Your task to perform on an android device: Open wifi settings Image 0: 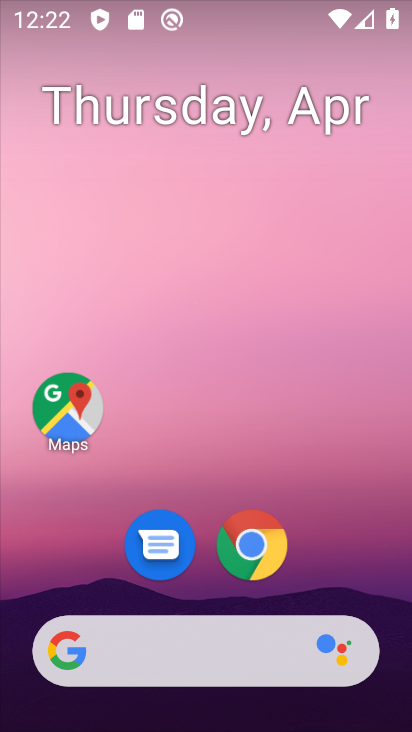
Step 0: drag from (337, 471) to (348, 177)
Your task to perform on an android device: Open wifi settings Image 1: 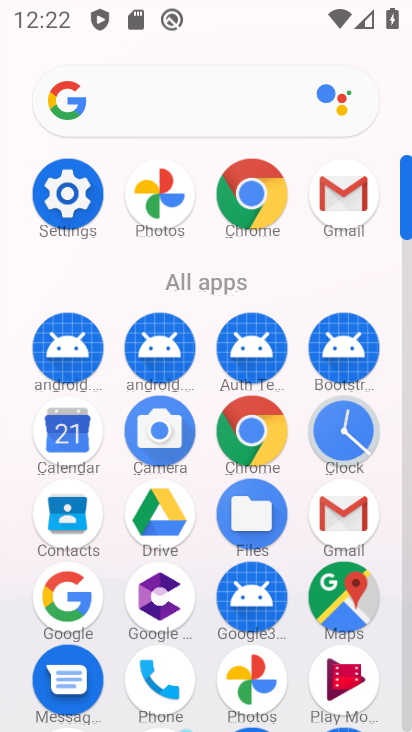
Step 1: click (84, 191)
Your task to perform on an android device: Open wifi settings Image 2: 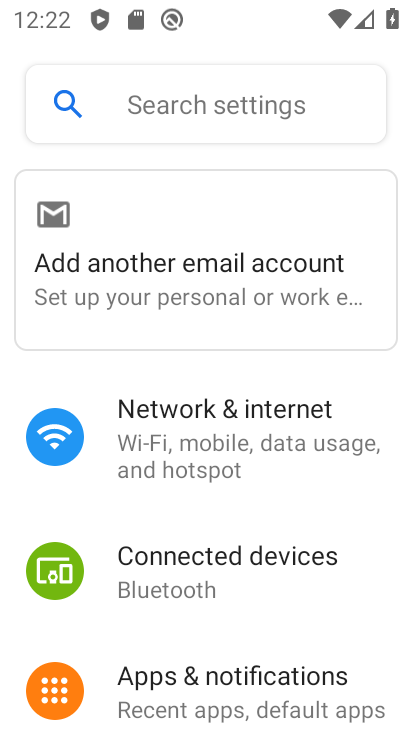
Step 2: click (176, 432)
Your task to perform on an android device: Open wifi settings Image 3: 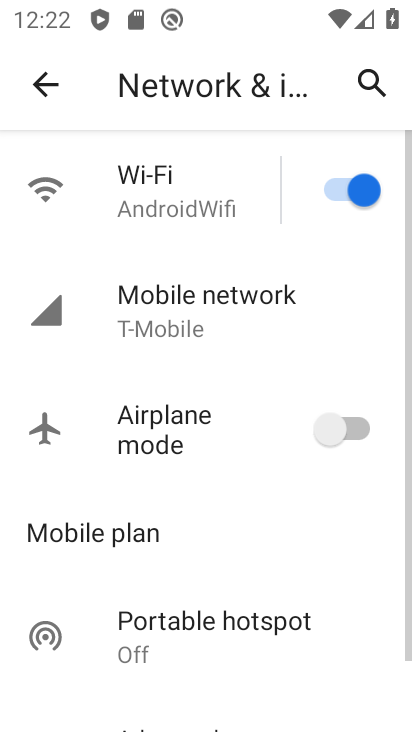
Step 3: click (188, 192)
Your task to perform on an android device: Open wifi settings Image 4: 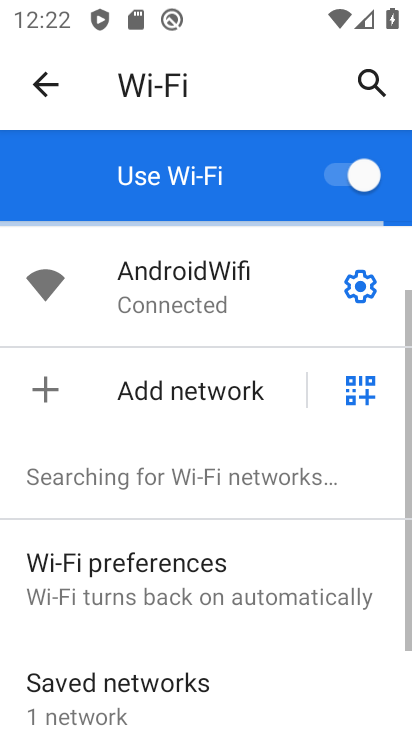
Step 4: click (356, 283)
Your task to perform on an android device: Open wifi settings Image 5: 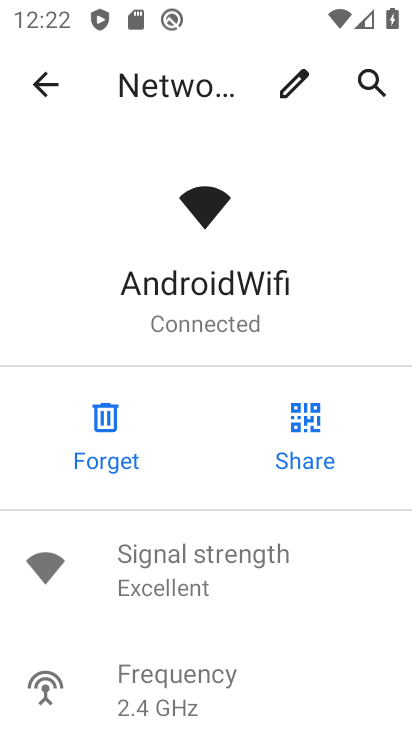
Step 5: task complete